Your task to perform on an android device: change notifications settings Image 0: 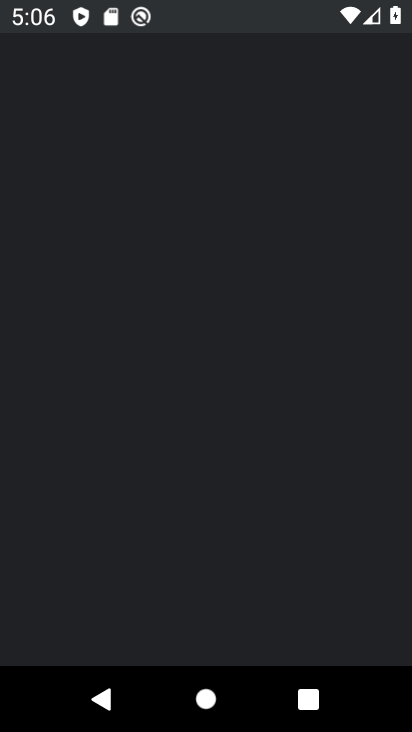
Step 0: drag from (314, 580) to (305, 181)
Your task to perform on an android device: change notifications settings Image 1: 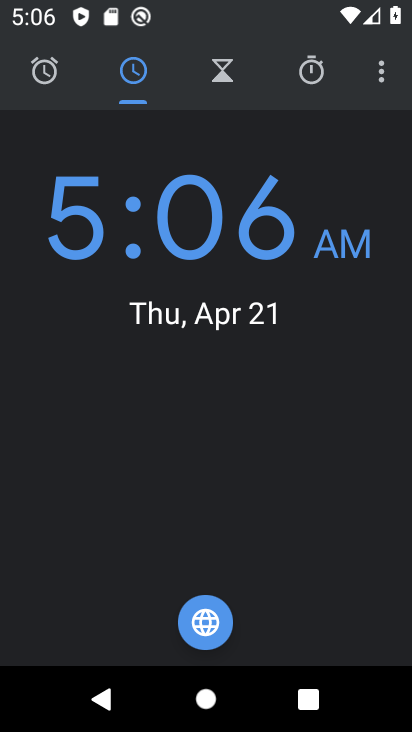
Step 1: press home button
Your task to perform on an android device: change notifications settings Image 2: 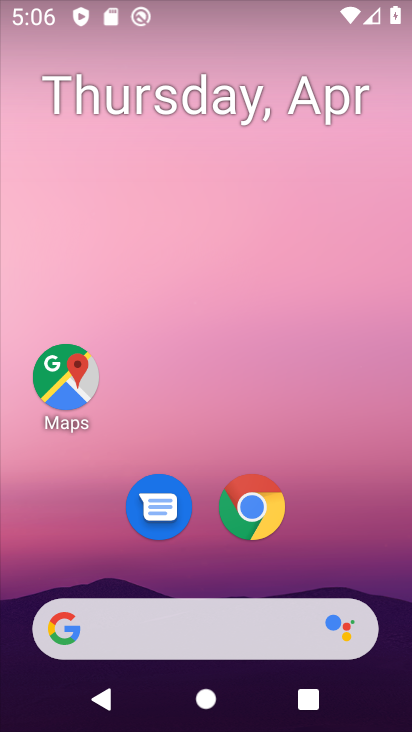
Step 2: drag from (298, 373) to (254, 178)
Your task to perform on an android device: change notifications settings Image 3: 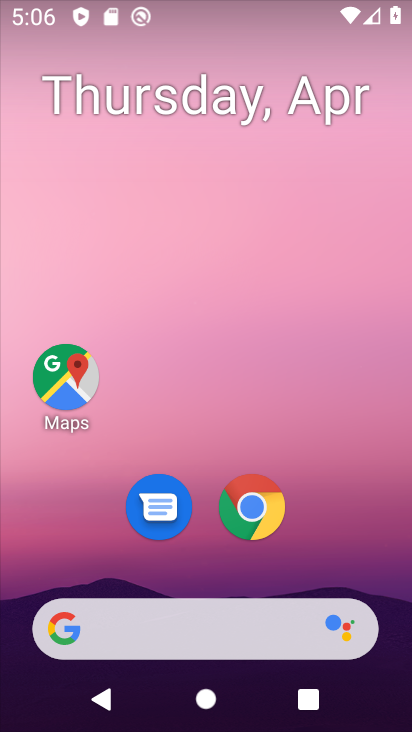
Step 3: drag from (346, 510) to (239, 160)
Your task to perform on an android device: change notifications settings Image 4: 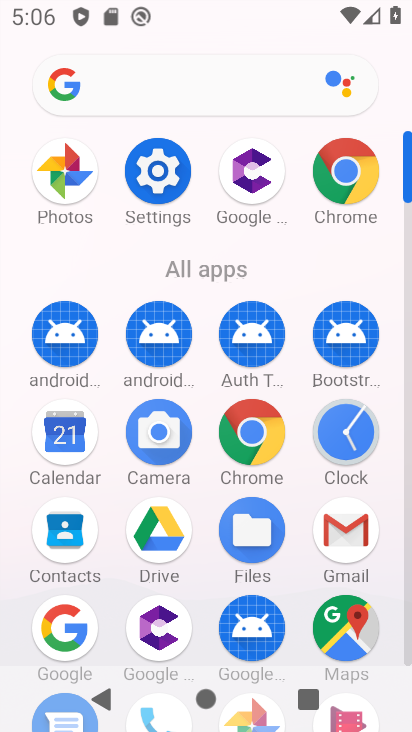
Step 4: click (166, 185)
Your task to perform on an android device: change notifications settings Image 5: 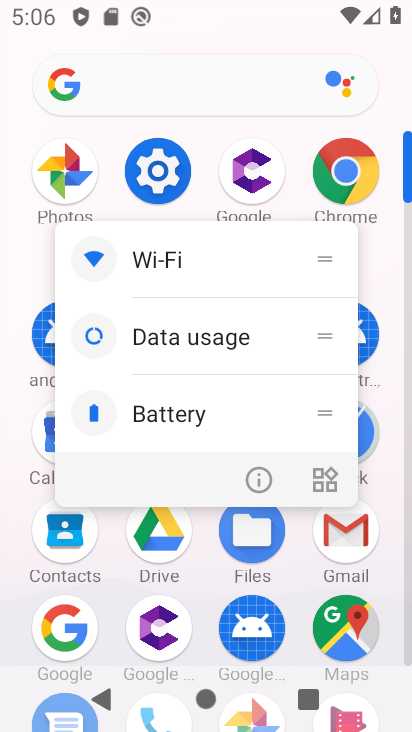
Step 5: click (152, 169)
Your task to perform on an android device: change notifications settings Image 6: 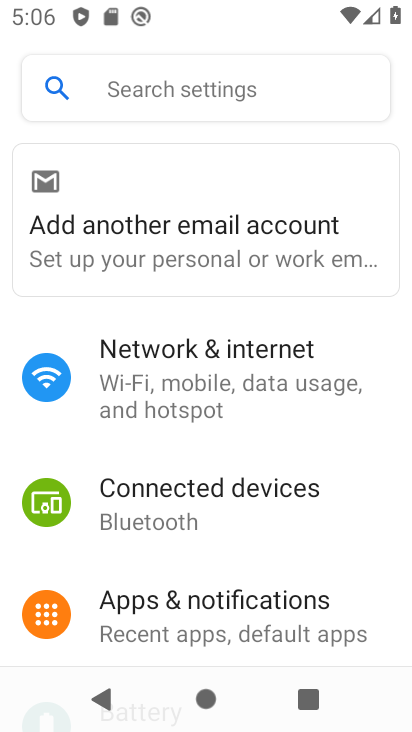
Step 6: click (153, 617)
Your task to perform on an android device: change notifications settings Image 7: 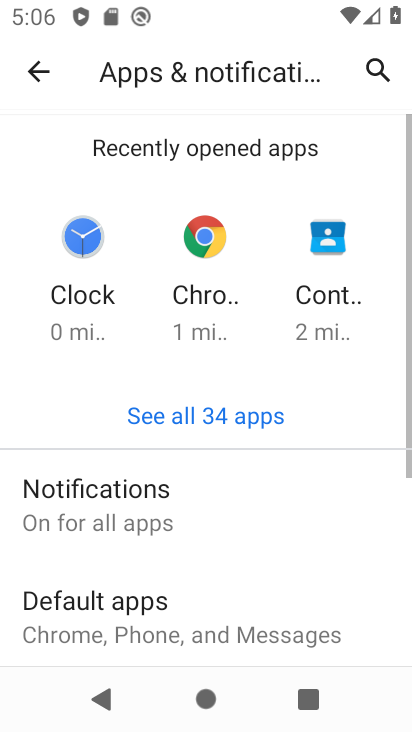
Step 7: click (125, 519)
Your task to perform on an android device: change notifications settings Image 8: 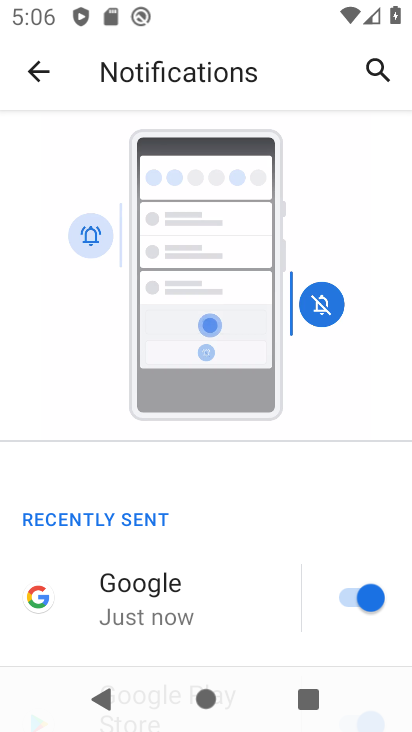
Step 8: task complete